Your task to perform on an android device: open app "Grab" Image 0: 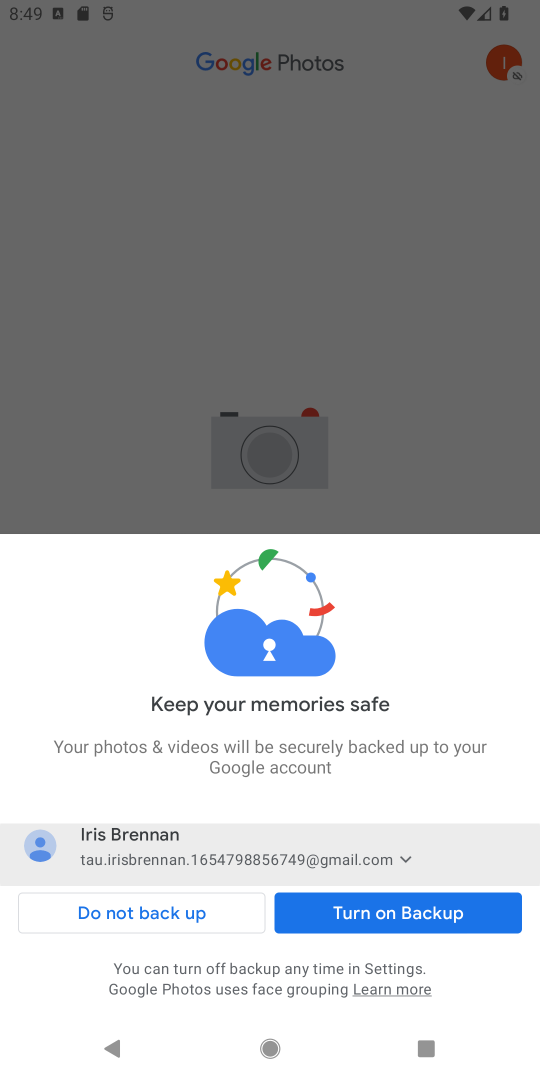
Step 0: press home button
Your task to perform on an android device: open app "Grab" Image 1: 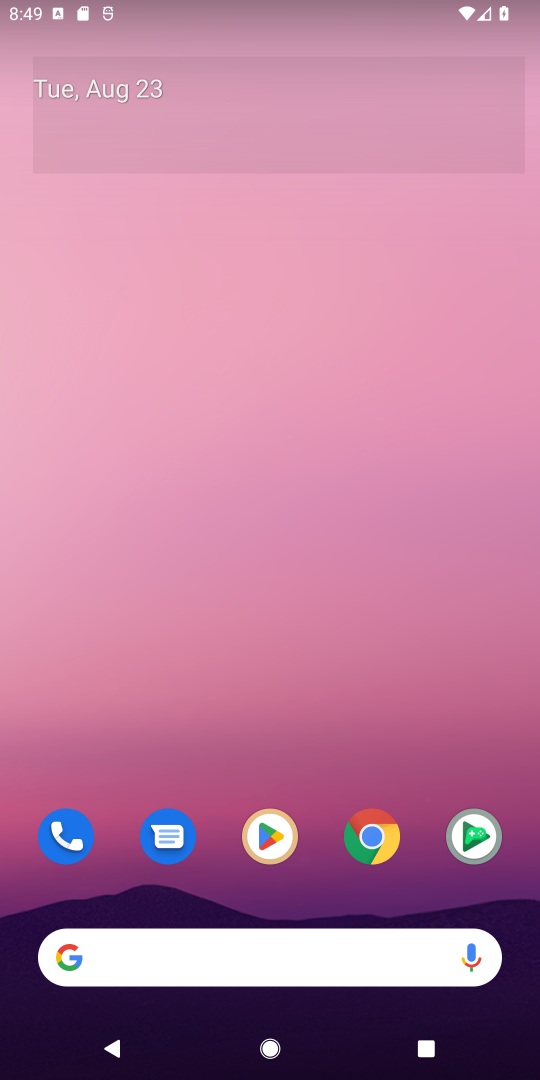
Step 1: click (272, 830)
Your task to perform on an android device: open app "Grab" Image 2: 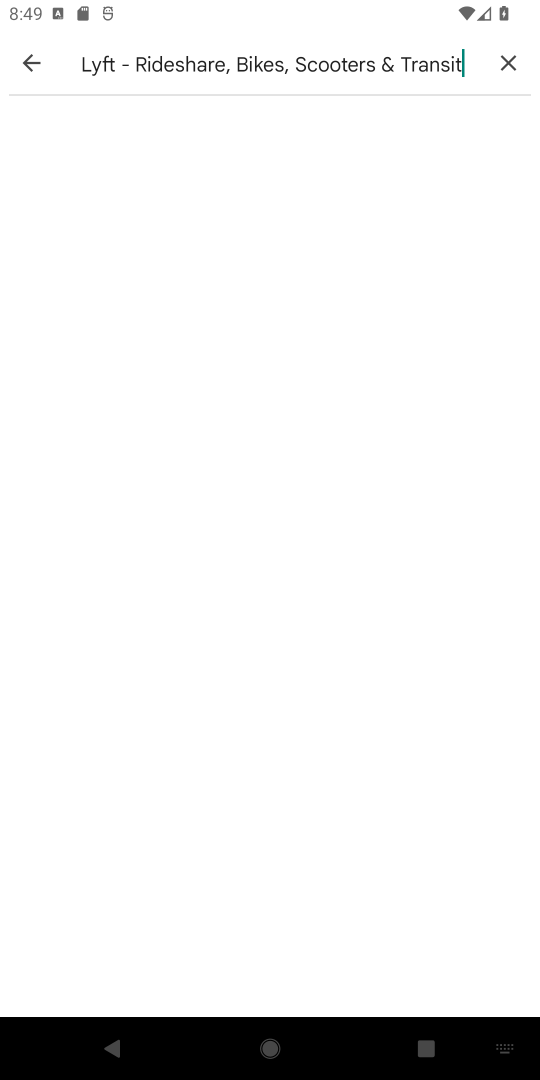
Step 2: click (507, 51)
Your task to perform on an android device: open app "Grab" Image 3: 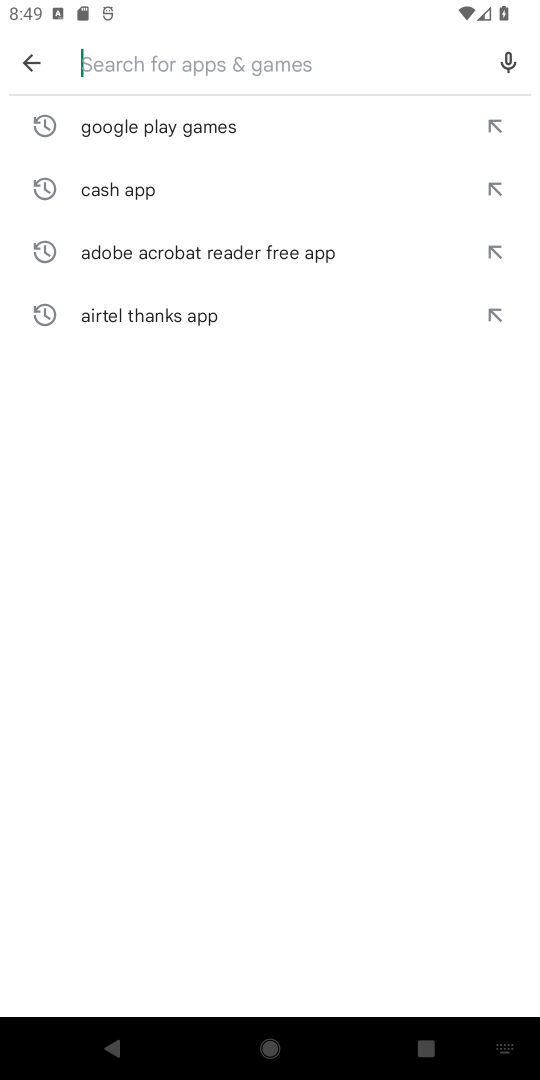
Step 3: type "Grab"
Your task to perform on an android device: open app "Grab" Image 4: 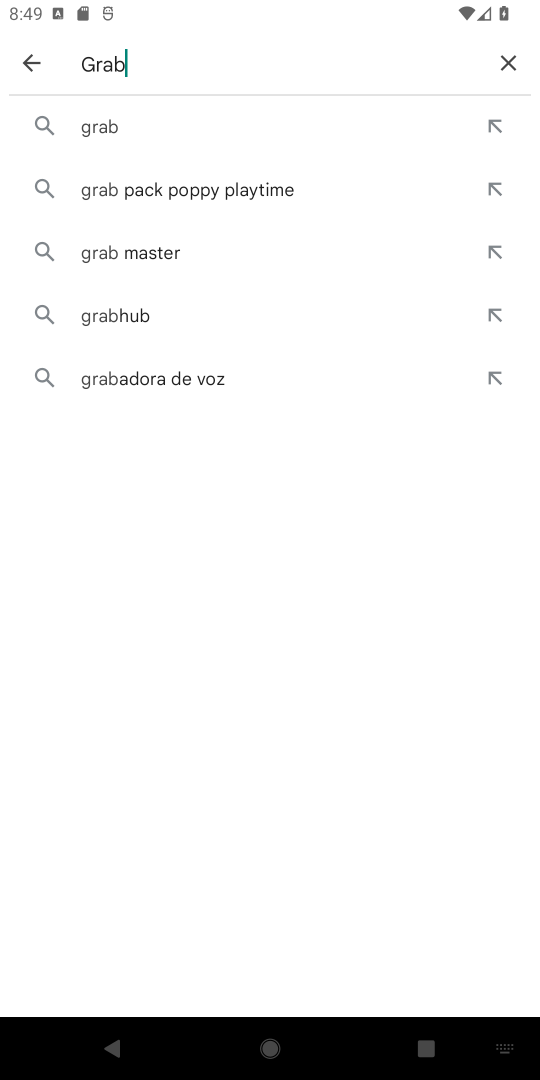
Step 4: click (91, 123)
Your task to perform on an android device: open app "Grab" Image 5: 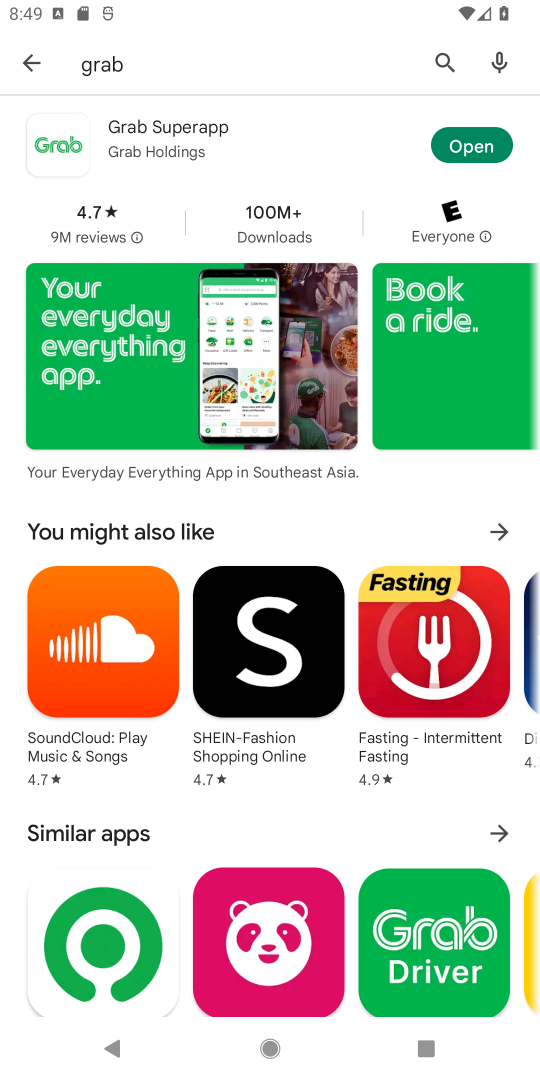
Step 5: click (454, 149)
Your task to perform on an android device: open app "Grab" Image 6: 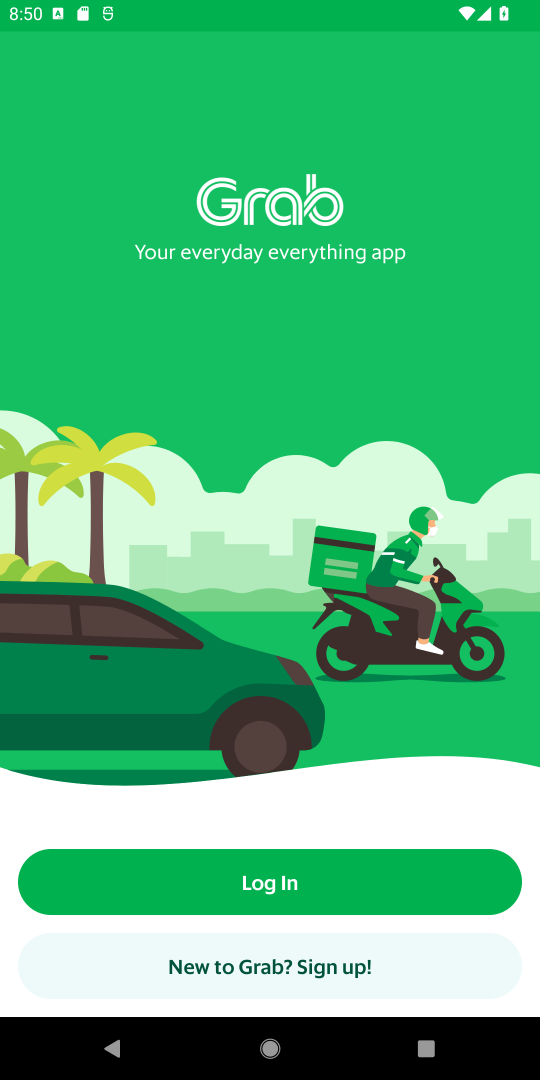
Step 6: task complete